Your task to perform on an android device: Open eBay Image 0: 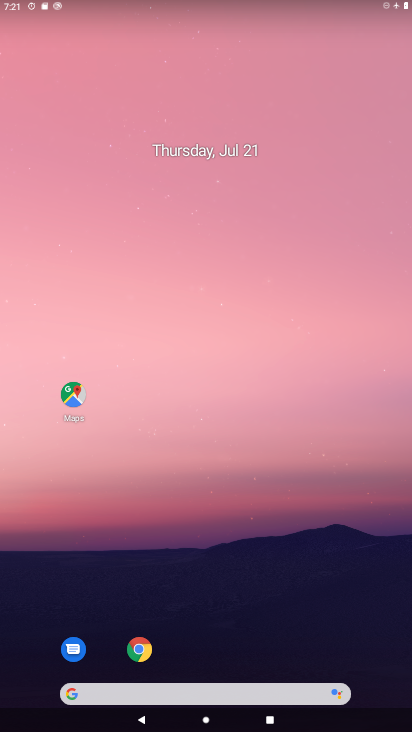
Step 0: drag from (324, 599) to (203, 21)
Your task to perform on an android device: Open eBay Image 1: 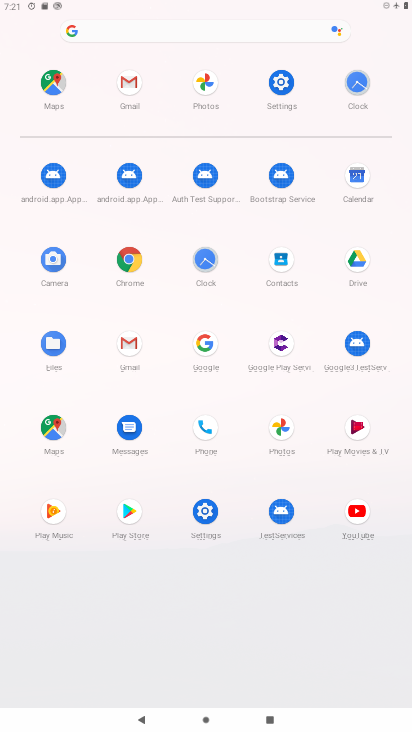
Step 1: click (192, 348)
Your task to perform on an android device: Open eBay Image 2: 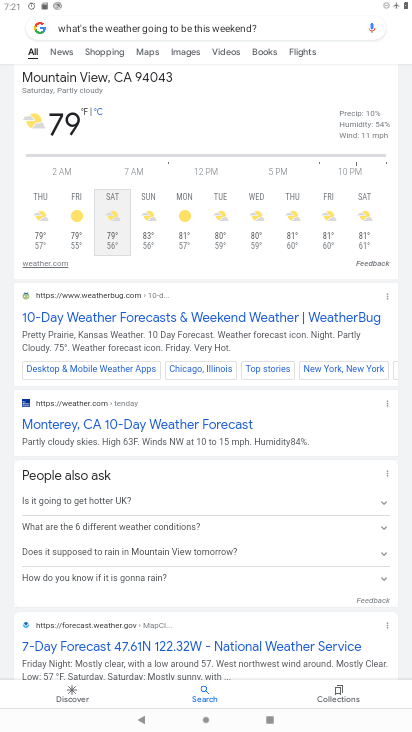
Step 2: press back button
Your task to perform on an android device: Open eBay Image 3: 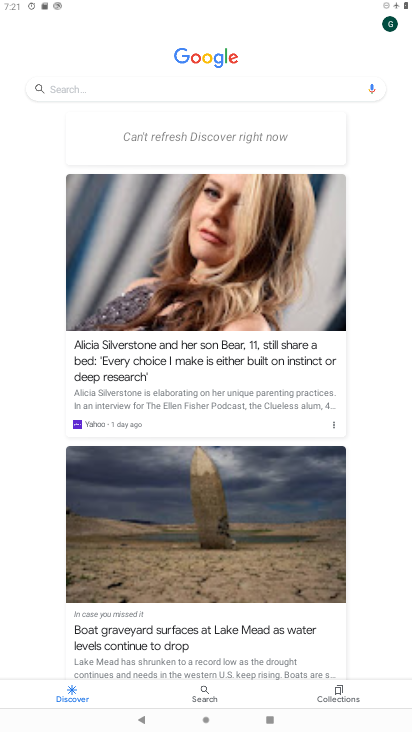
Step 3: click (110, 88)
Your task to perform on an android device: Open eBay Image 4: 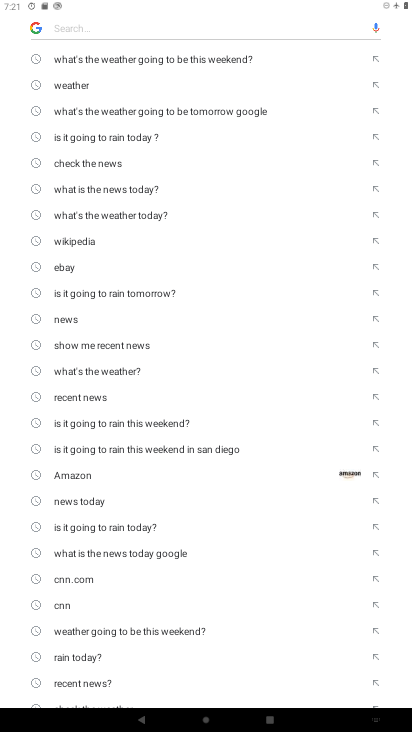
Step 4: click (72, 275)
Your task to perform on an android device: Open eBay Image 5: 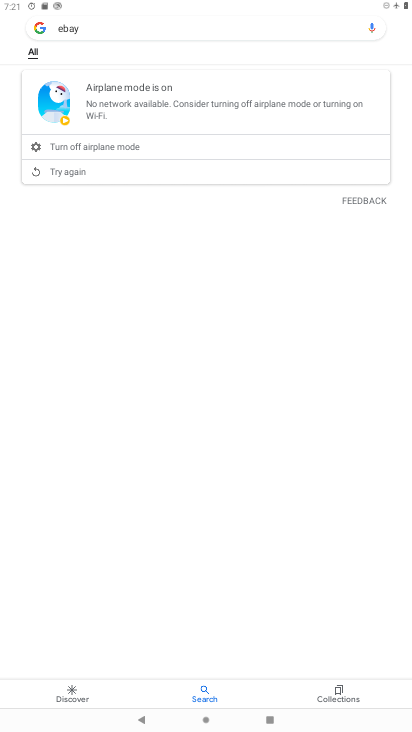
Step 5: task complete